Your task to perform on an android device: Open Google Image 0: 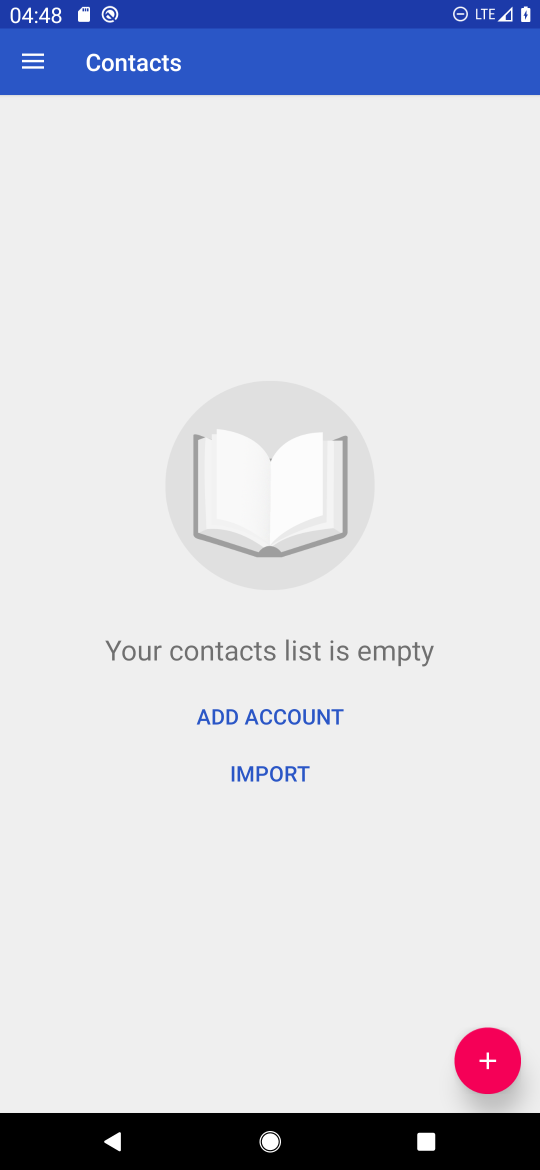
Step 0: press home button
Your task to perform on an android device: Open Google Image 1: 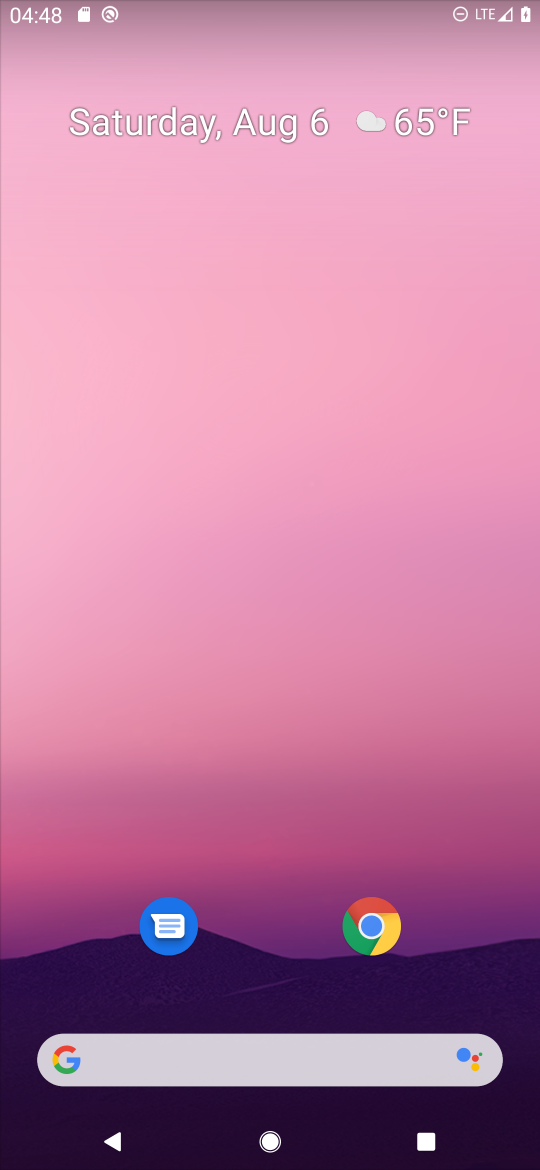
Step 1: drag from (285, 832) to (292, 409)
Your task to perform on an android device: Open Google Image 2: 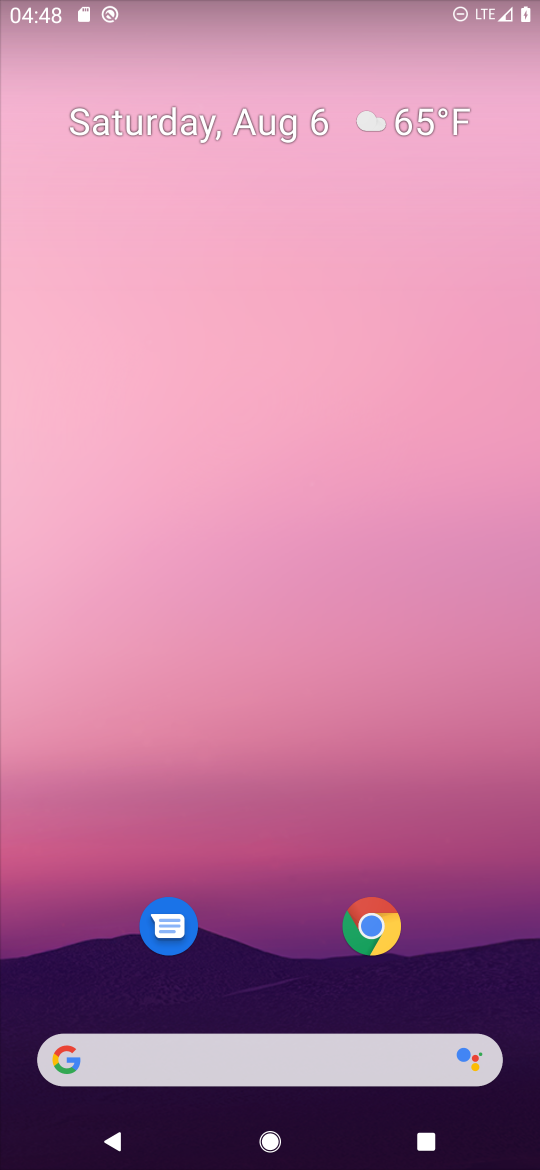
Step 2: drag from (275, 965) to (309, 275)
Your task to perform on an android device: Open Google Image 3: 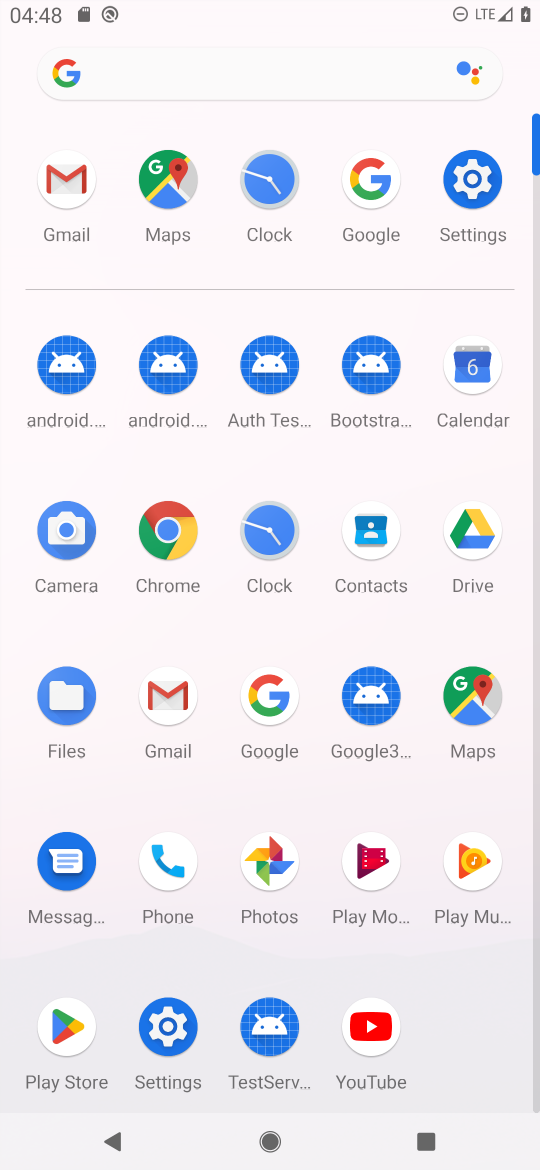
Step 3: click (351, 208)
Your task to perform on an android device: Open Google Image 4: 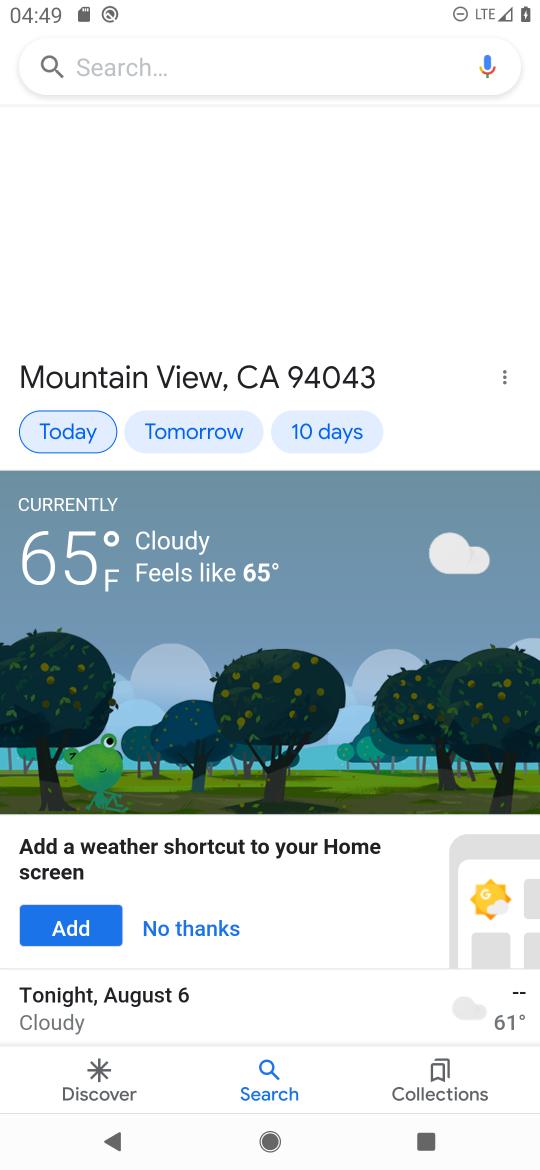
Step 4: task complete